Your task to perform on an android device: Open the stopwatch Image 0: 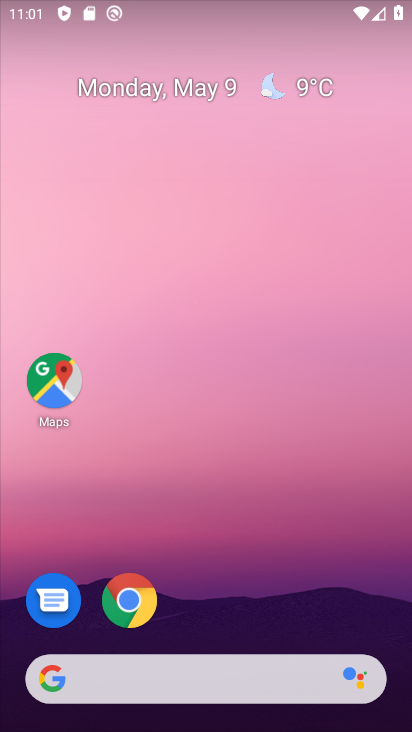
Step 0: drag from (223, 643) to (334, 18)
Your task to perform on an android device: Open the stopwatch Image 1: 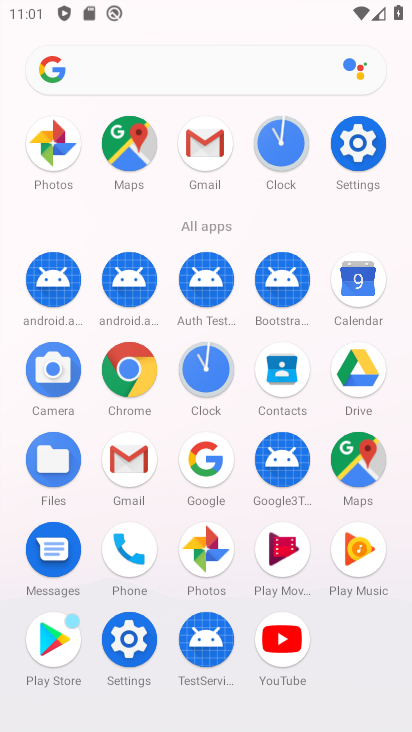
Step 1: click (209, 372)
Your task to perform on an android device: Open the stopwatch Image 2: 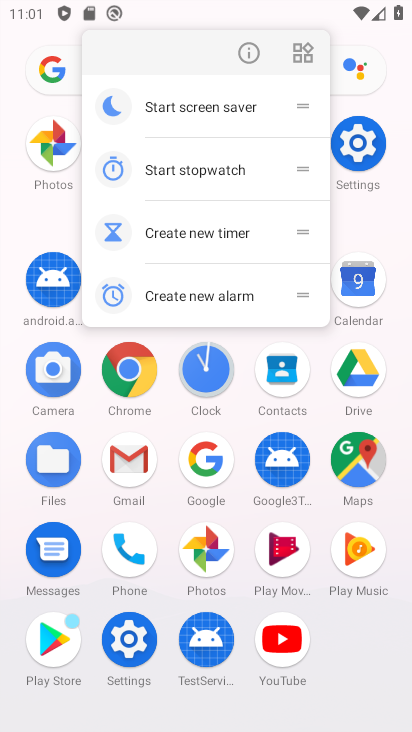
Step 2: click (207, 373)
Your task to perform on an android device: Open the stopwatch Image 3: 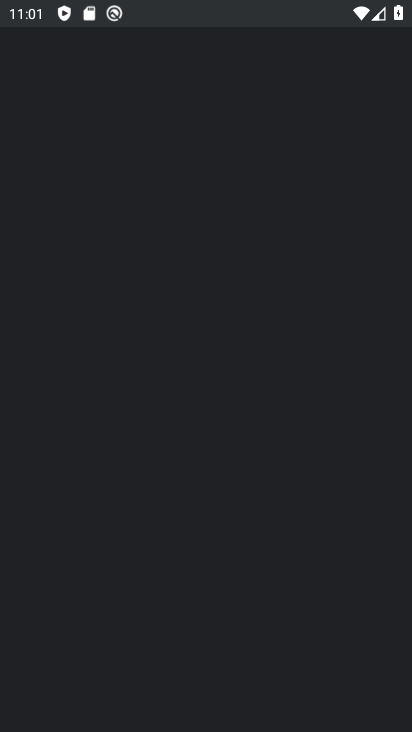
Step 3: click (206, 373)
Your task to perform on an android device: Open the stopwatch Image 4: 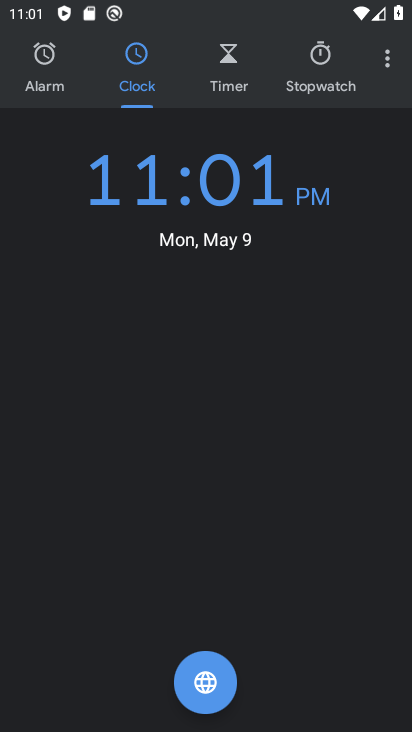
Step 4: click (328, 46)
Your task to perform on an android device: Open the stopwatch Image 5: 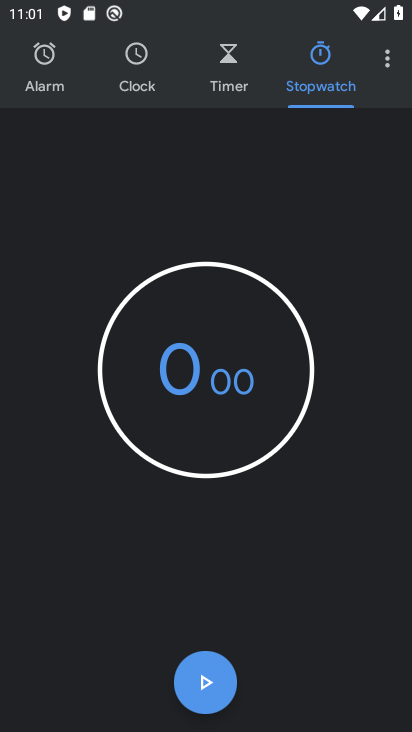
Step 5: click (237, 686)
Your task to perform on an android device: Open the stopwatch Image 6: 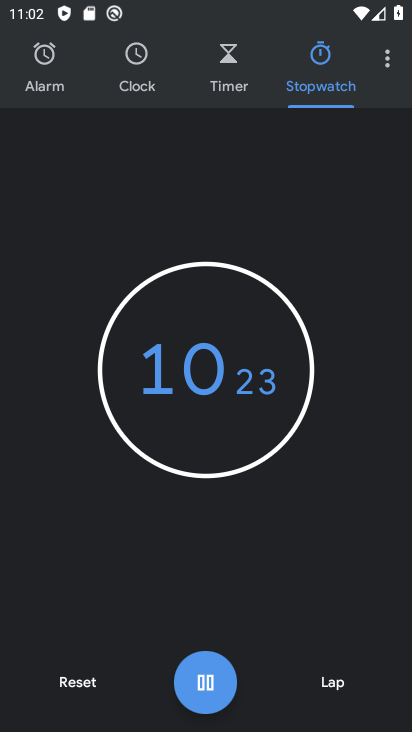
Step 6: task complete